Your task to perform on an android device: Open Google Image 0: 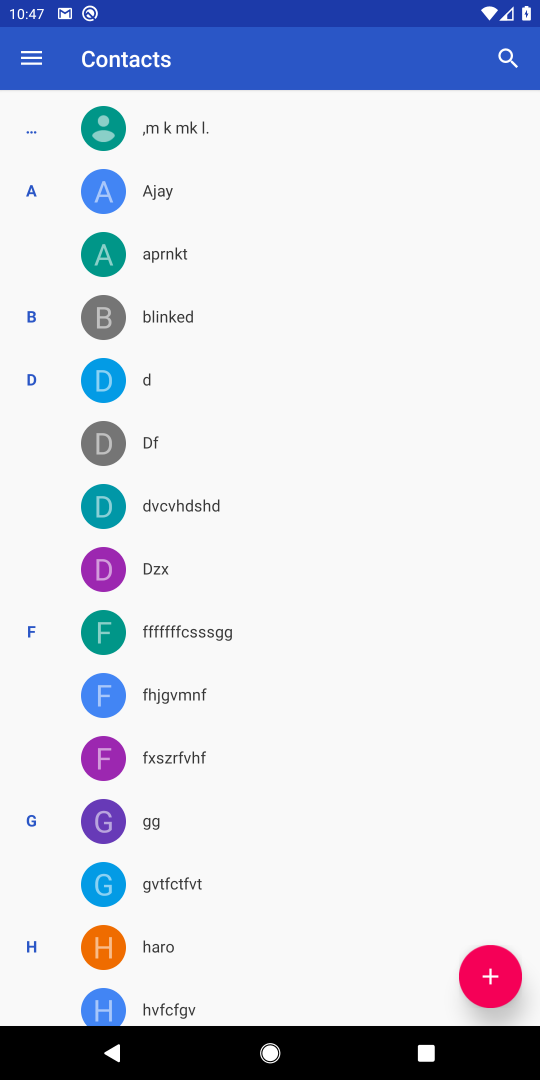
Step 0: press home button
Your task to perform on an android device: Open Google Image 1: 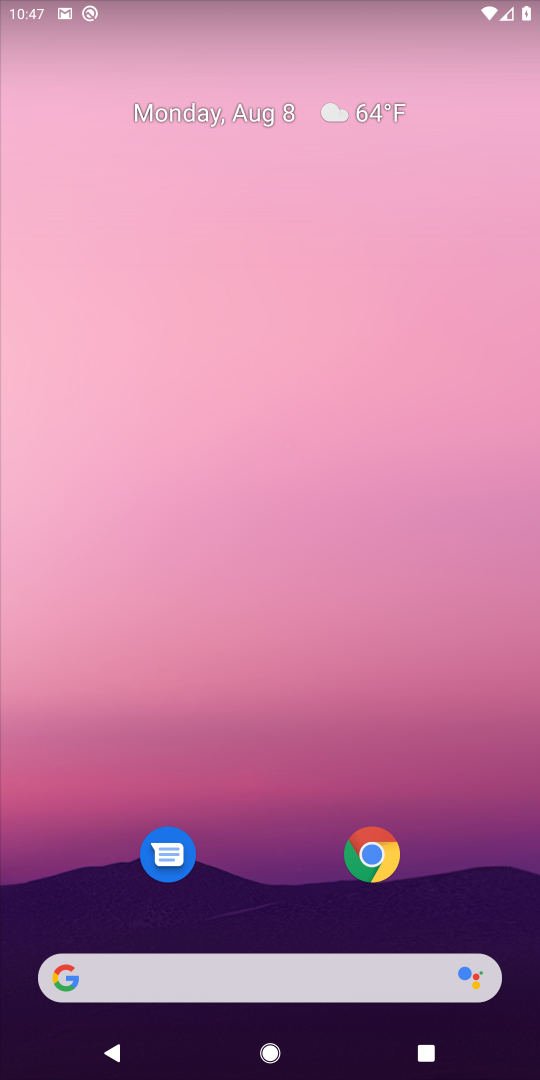
Step 1: click (214, 985)
Your task to perform on an android device: Open Google Image 2: 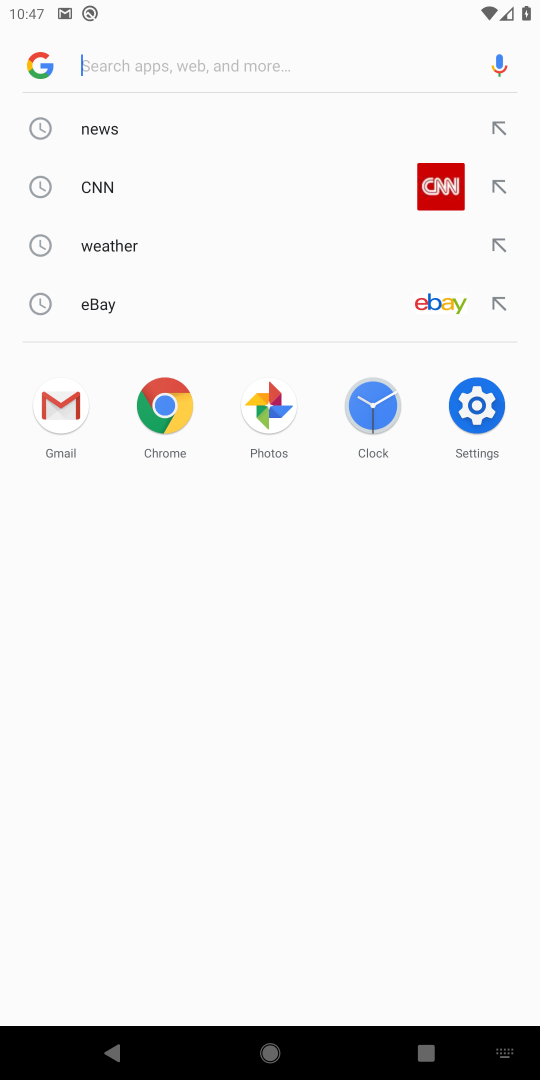
Step 2: click (42, 55)
Your task to perform on an android device: Open Google Image 3: 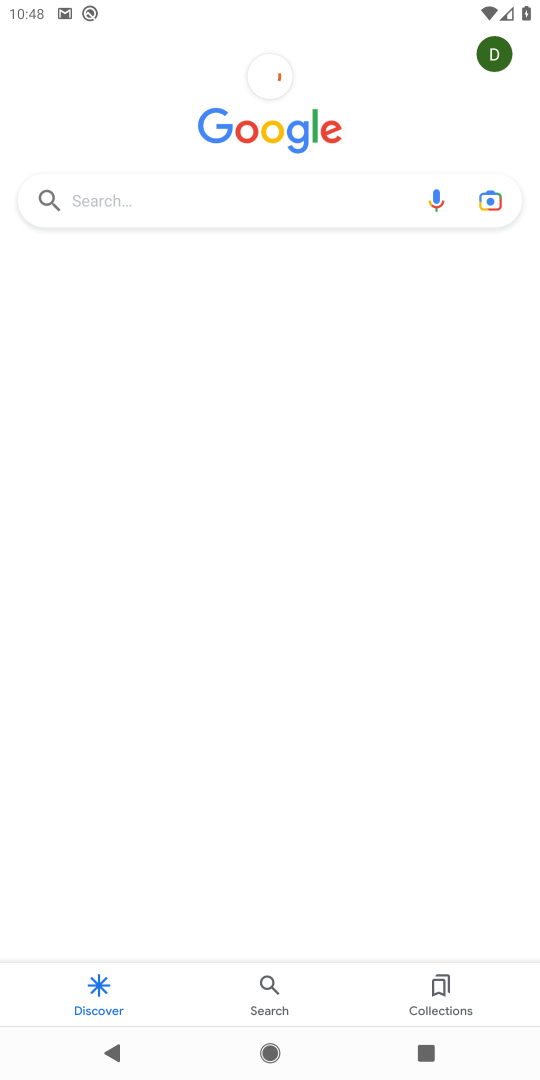
Step 3: task complete